Your task to perform on an android device: Go to Amazon Image 0: 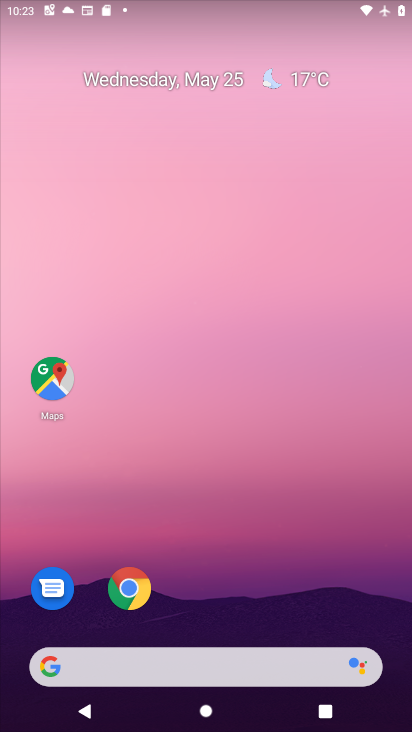
Step 0: drag from (312, 623) to (327, 165)
Your task to perform on an android device: Go to Amazon Image 1: 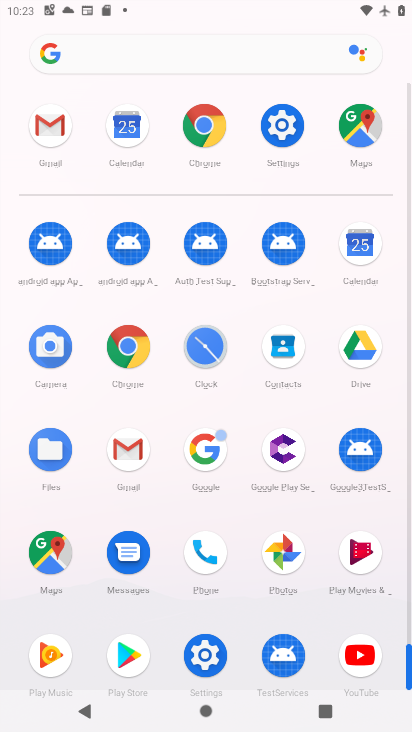
Step 1: click (127, 356)
Your task to perform on an android device: Go to Amazon Image 2: 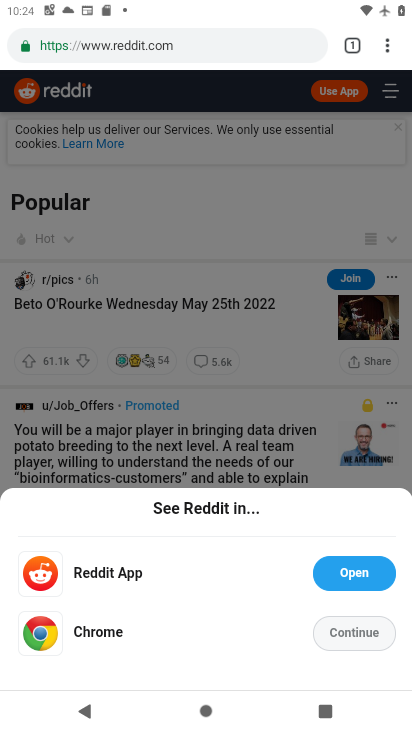
Step 2: press back button
Your task to perform on an android device: Go to Amazon Image 3: 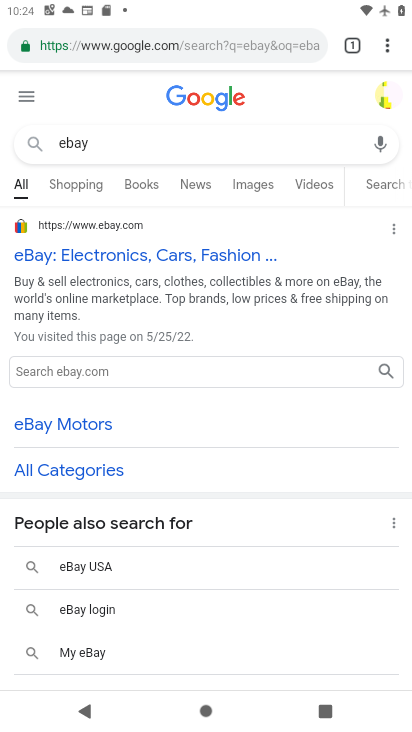
Step 3: click (256, 53)
Your task to perform on an android device: Go to Amazon Image 4: 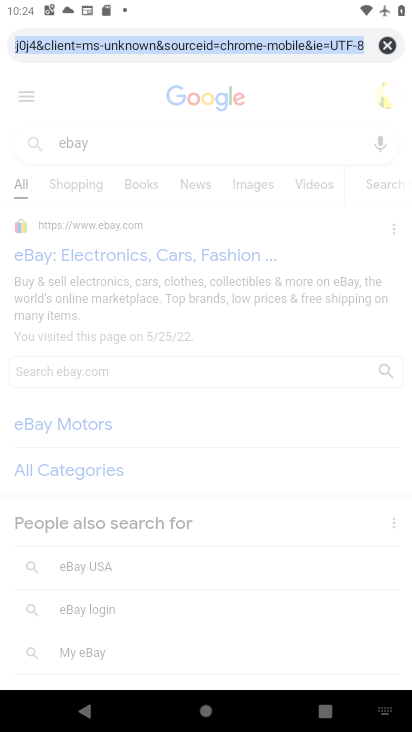
Step 4: click (385, 43)
Your task to perform on an android device: Go to Amazon Image 5: 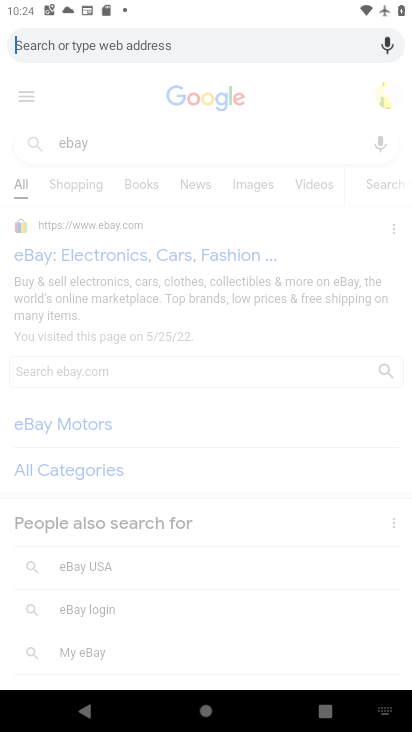
Step 5: type "Amazon"
Your task to perform on an android device: Go to Amazon Image 6: 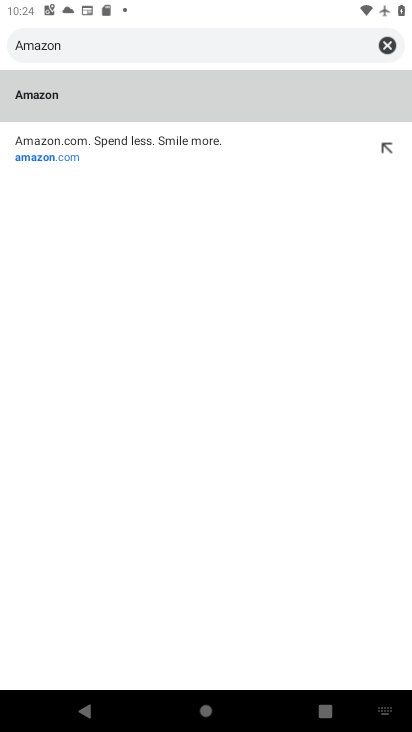
Step 6: click (118, 149)
Your task to perform on an android device: Go to Amazon Image 7: 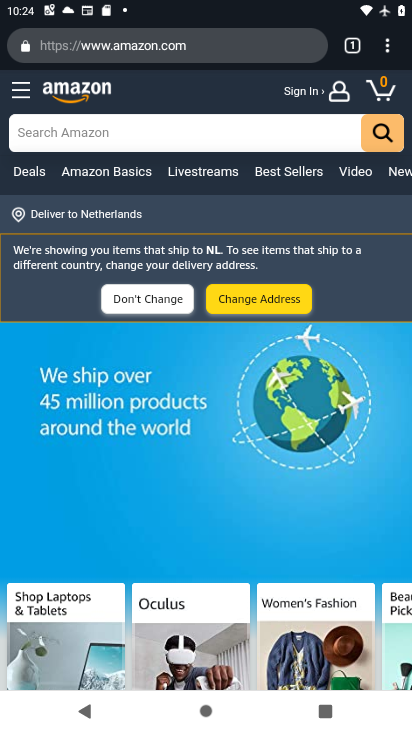
Step 7: task complete